Your task to perform on an android device: find photos in the google photos app Image 0: 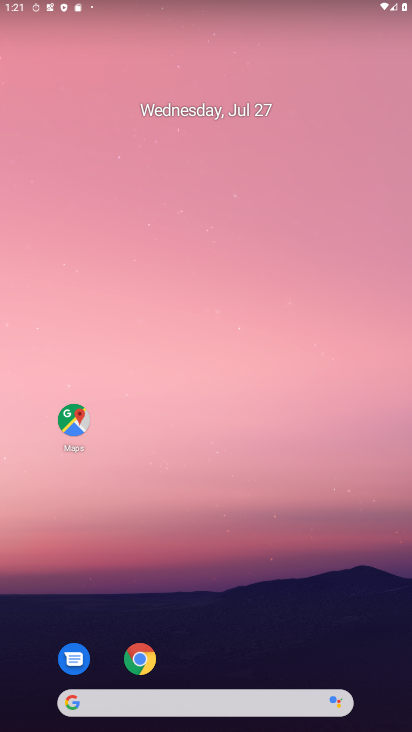
Step 0: press home button
Your task to perform on an android device: find photos in the google photos app Image 1: 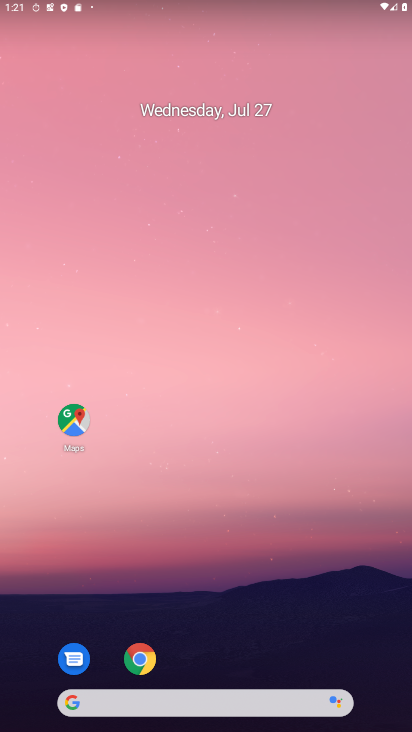
Step 1: click (164, 624)
Your task to perform on an android device: find photos in the google photos app Image 2: 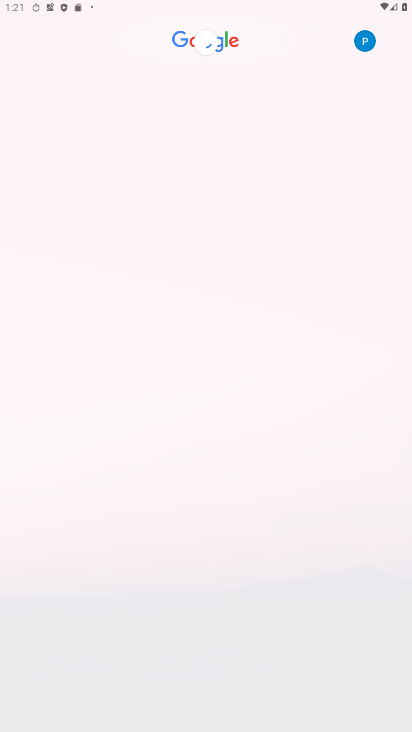
Step 2: press home button
Your task to perform on an android device: find photos in the google photos app Image 3: 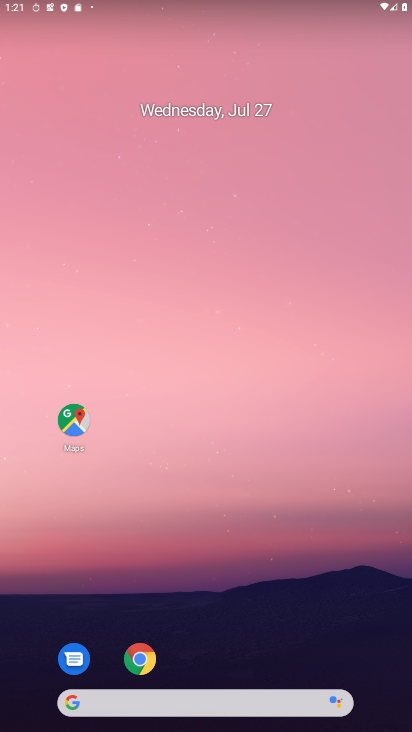
Step 3: drag from (284, 548) to (188, 95)
Your task to perform on an android device: find photos in the google photos app Image 4: 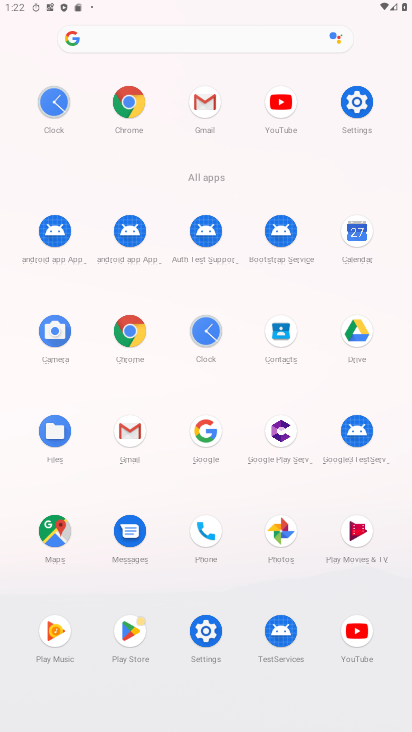
Step 4: click (278, 526)
Your task to perform on an android device: find photos in the google photos app Image 5: 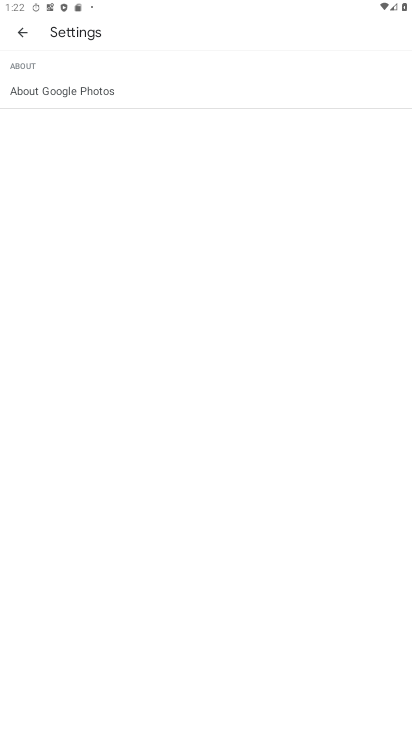
Step 5: click (31, 38)
Your task to perform on an android device: find photos in the google photos app Image 6: 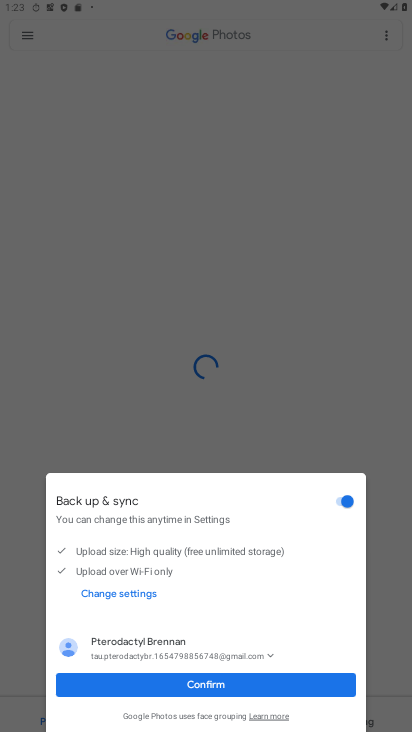
Step 6: click (238, 685)
Your task to perform on an android device: find photos in the google photos app Image 7: 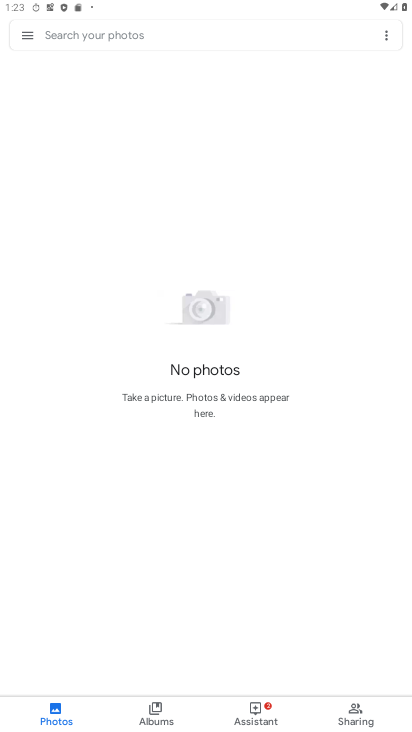
Step 7: task complete